Your task to perform on an android device: Open sound settings Image 0: 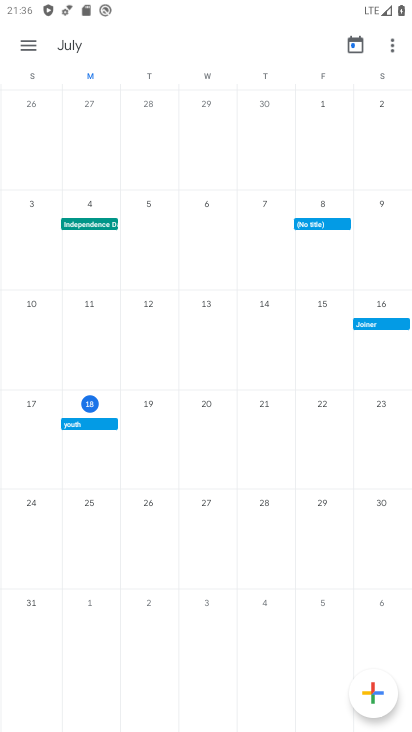
Step 0: press home button
Your task to perform on an android device: Open sound settings Image 1: 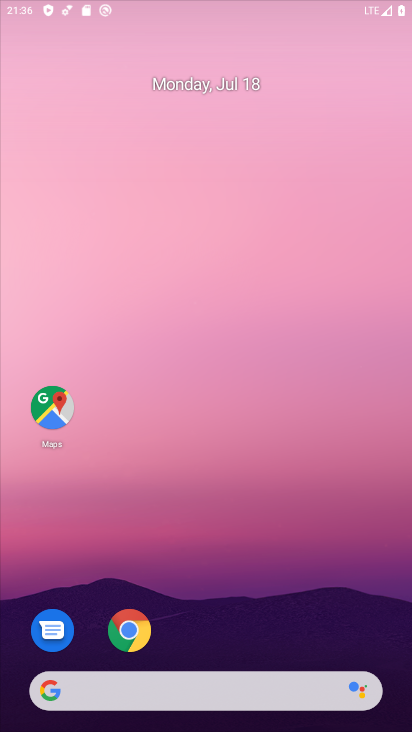
Step 1: drag from (159, 604) to (109, 22)
Your task to perform on an android device: Open sound settings Image 2: 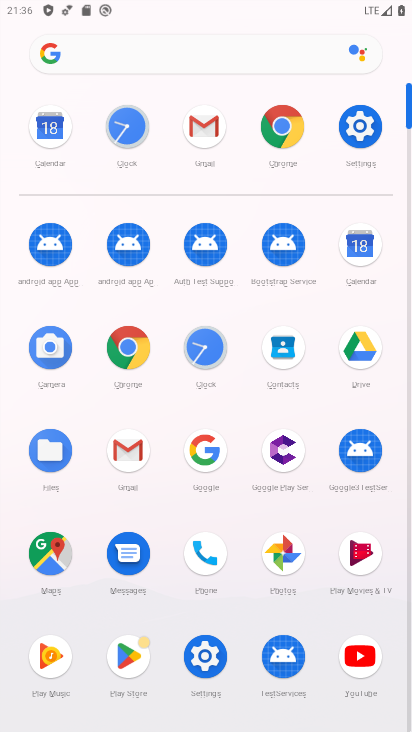
Step 2: click (359, 124)
Your task to perform on an android device: Open sound settings Image 3: 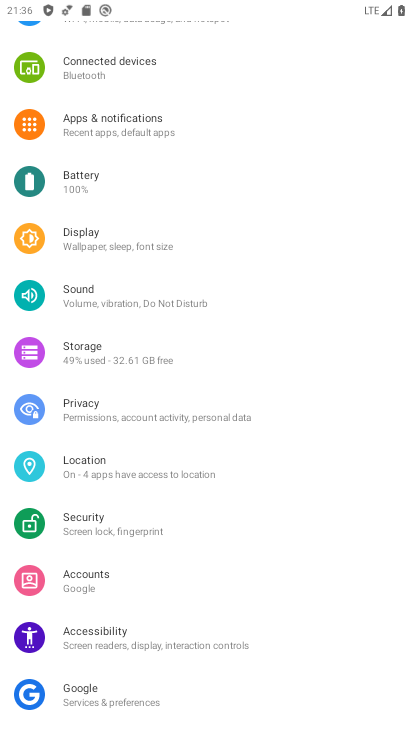
Step 3: click (126, 297)
Your task to perform on an android device: Open sound settings Image 4: 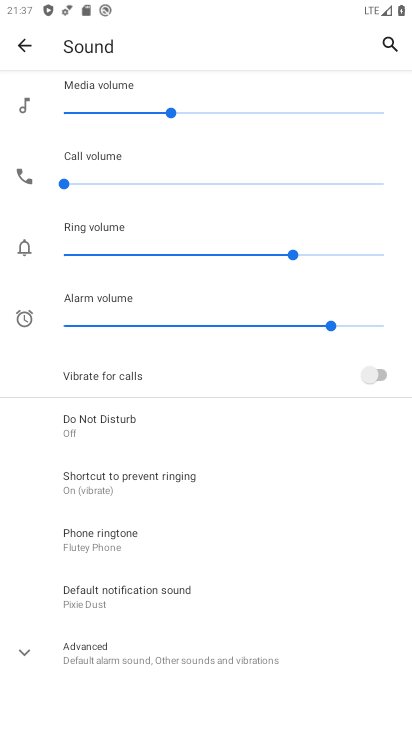
Step 4: task complete